Your task to perform on an android device: check android version Image 0: 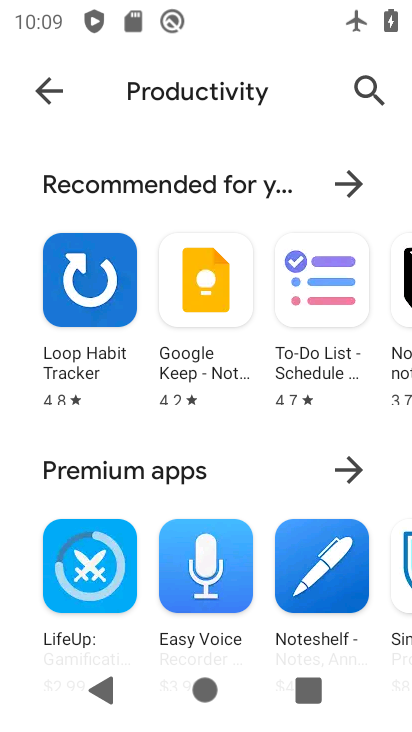
Step 0: press home button
Your task to perform on an android device: check android version Image 1: 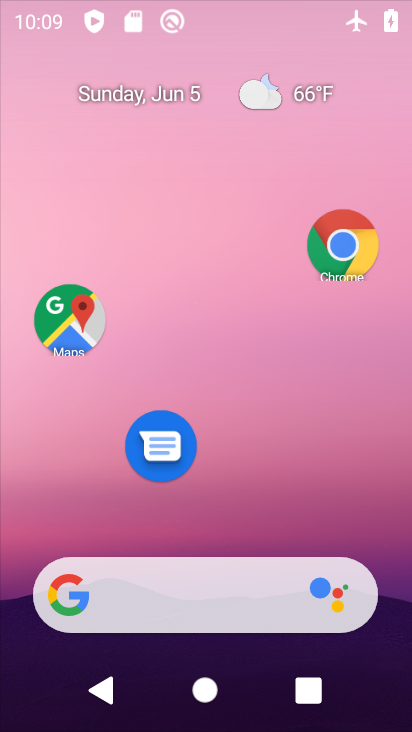
Step 1: drag from (225, 528) to (216, 181)
Your task to perform on an android device: check android version Image 2: 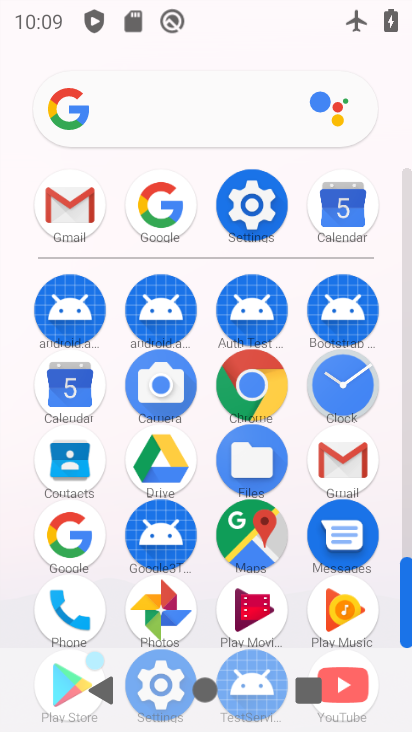
Step 2: click (243, 214)
Your task to perform on an android device: check android version Image 3: 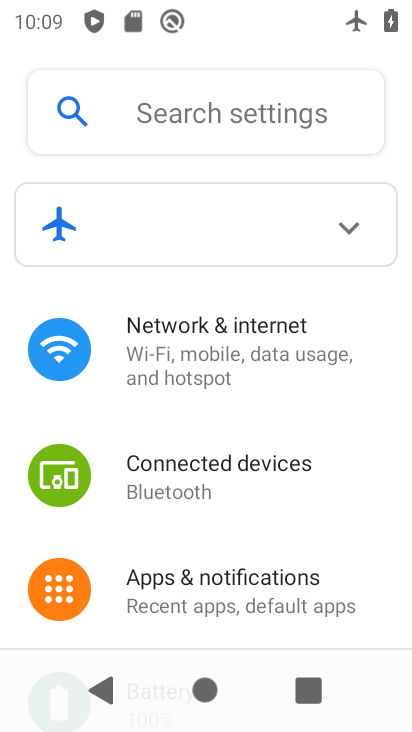
Step 3: drag from (243, 575) to (227, 187)
Your task to perform on an android device: check android version Image 4: 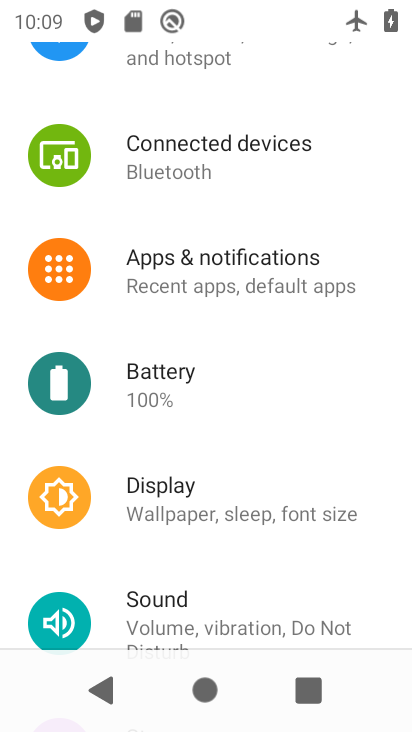
Step 4: drag from (231, 539) to (226, 151)
Your task to perform on an android device: check android version Image 5: 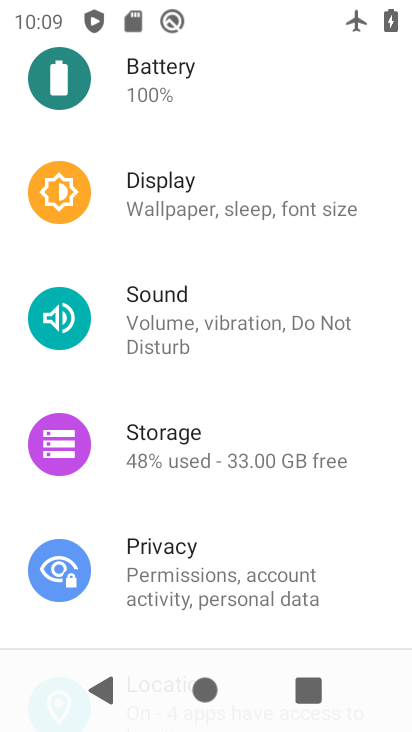
Step 5: drag from (233, 557) to (278, 151)
Your task to perform on an android device: check android version Image 6: 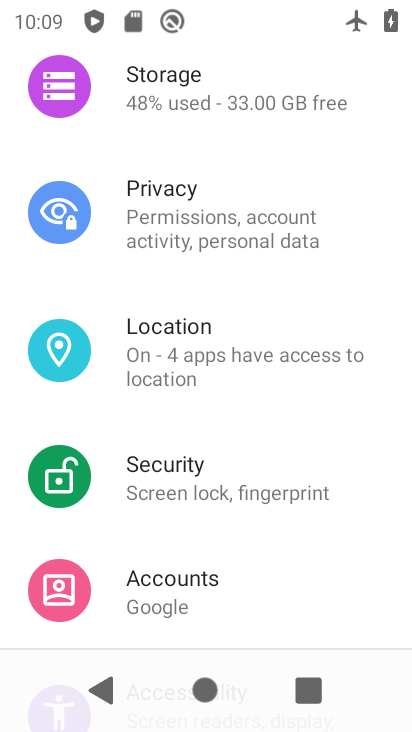
Step 6: drag from (285, 573) to (287, 134)
Your task to perform on an android device: check android version Image 7: 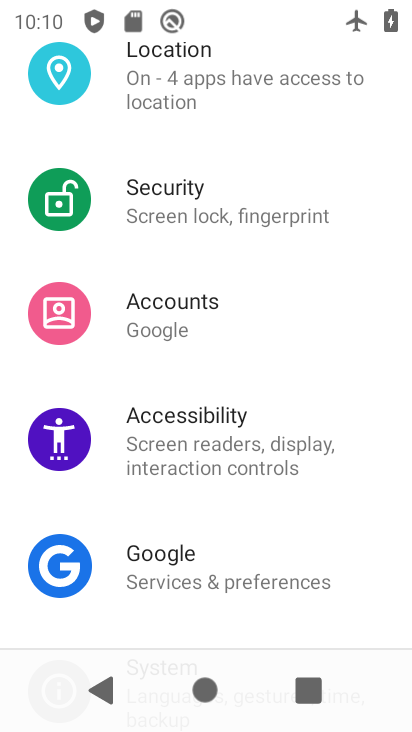
Step 7: drag from (213, 523) to (208, 179)
Your task to perform on an android device: check android version Image 8: 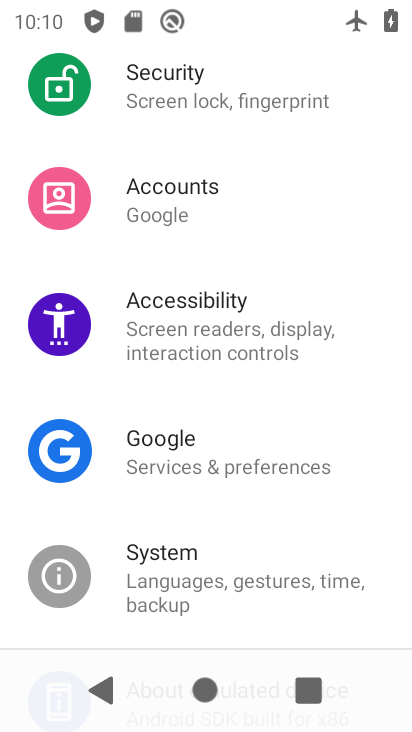
Step 8: drag from (221, 361) to (223, 204)
Your task to perform on an android device: check android version Image 9: 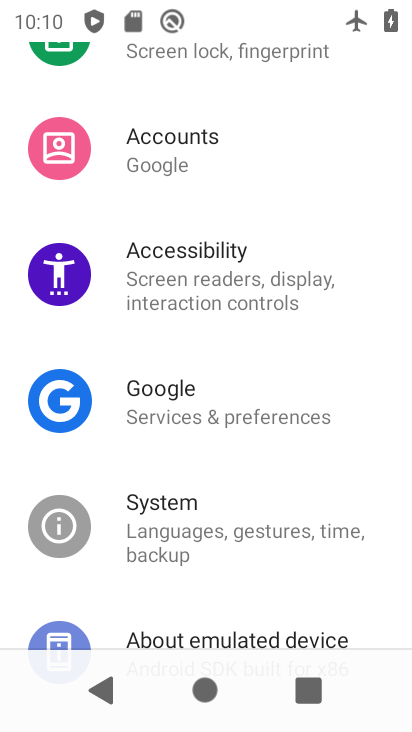
Step 9: drag from (193, 612) to (201, 242)
Your task to perform on an android device: check android version Image 10: 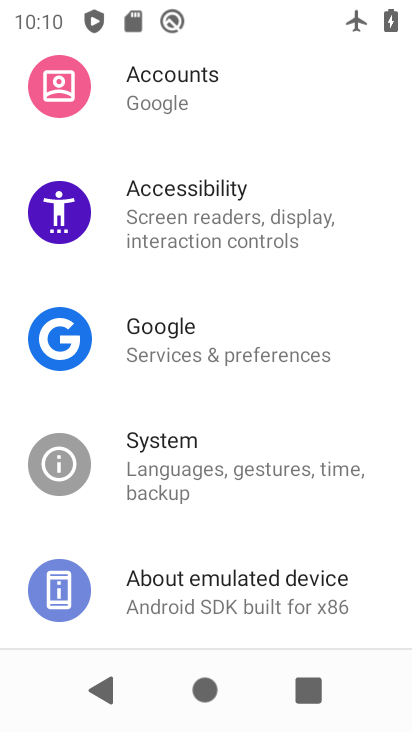
Step 10: click (228, 602)
Your task to perform on an android device: check android version Image 11: 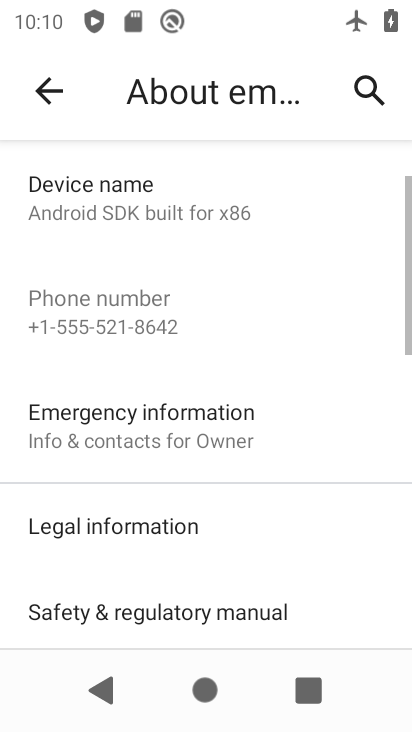
Step 11: drag from (186, 521) to (233, 235)
Your task to perform on an android device: check android version Image 12: 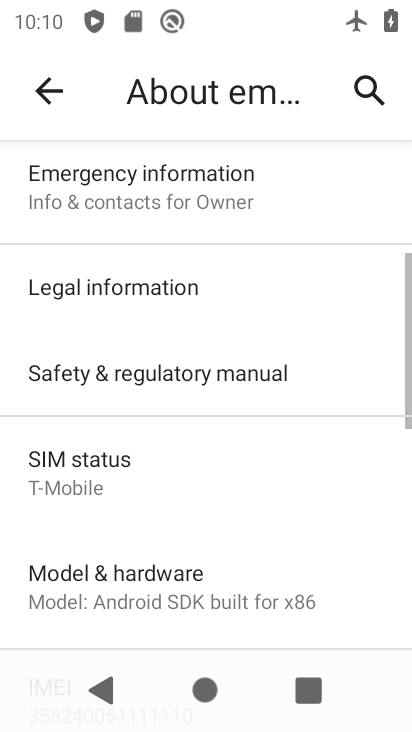
Step 12: drag from (256, 614) to (262, 313)
Your task to perform on an android device: check android version Image 13: 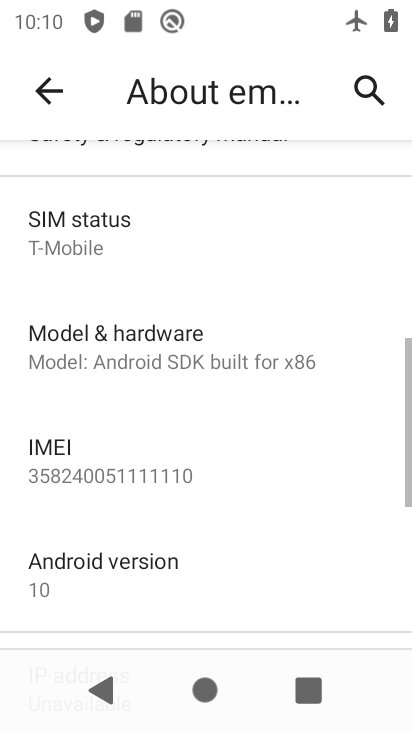
Step 13: drag from (231, 570) to (241, 295)
Your task to perform on an android device: check android version Image 14: 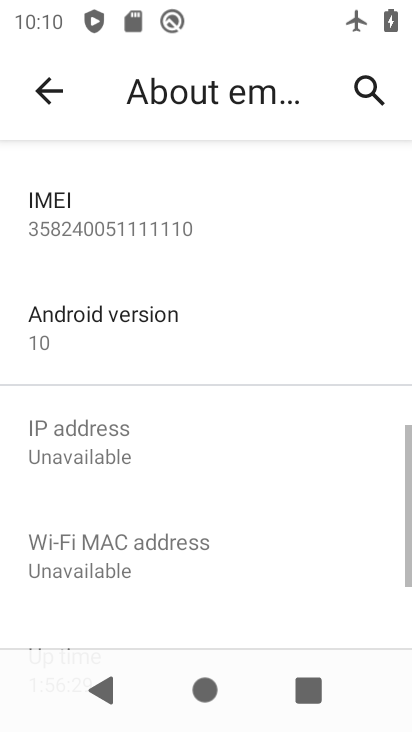
Step 14: click (181, 324)
Your task to perform on an android device: check android version Image 15: 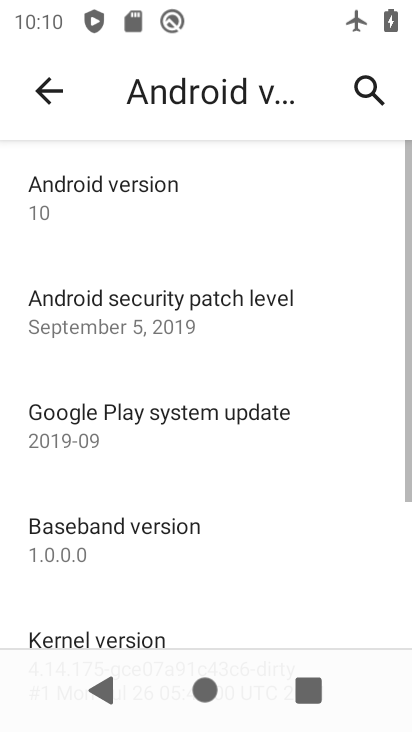
Step 15: click (152, 216)
Your task to perform on an android device: check android version Image 16: 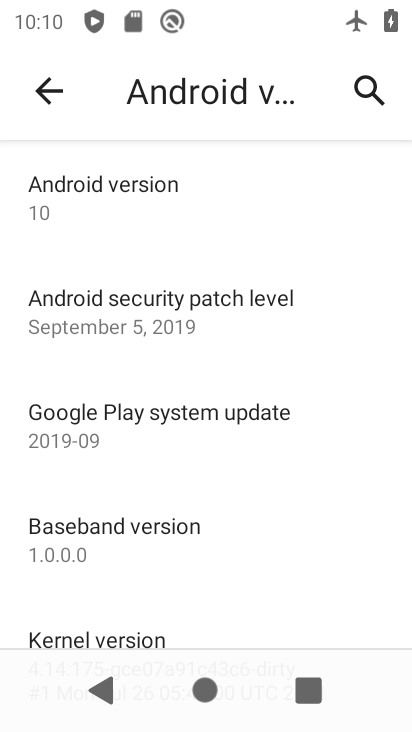
Step 16: click (152, 216)
Your task to perform on an android device: check android version Image 17: 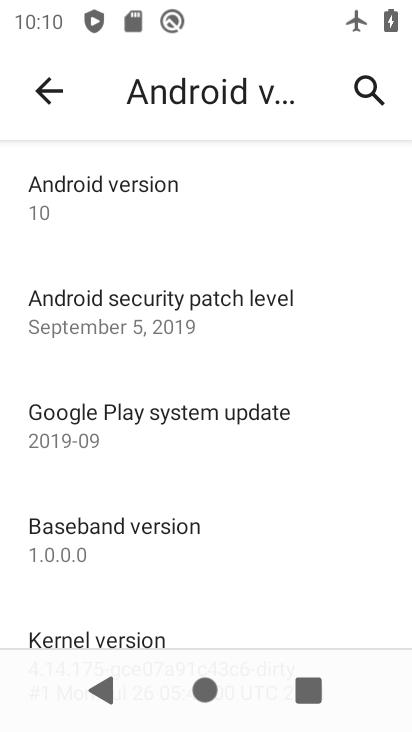
Step 17: click (152, 216)
Your task to perform on an android device: check android version Image 18: 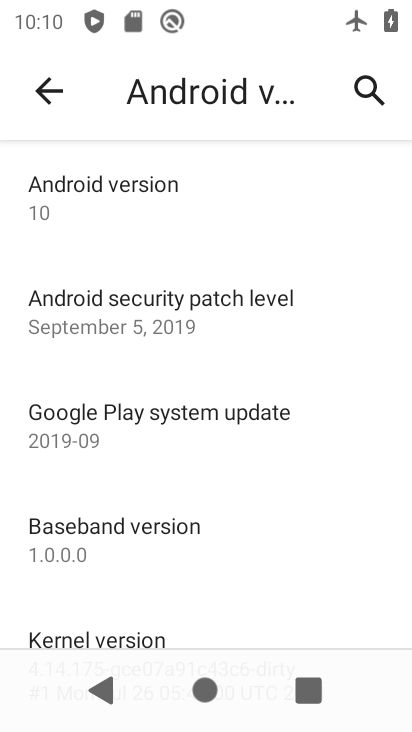
Step 18: click (152, 216)
Your task to perform on an android device: check android version Image 19: 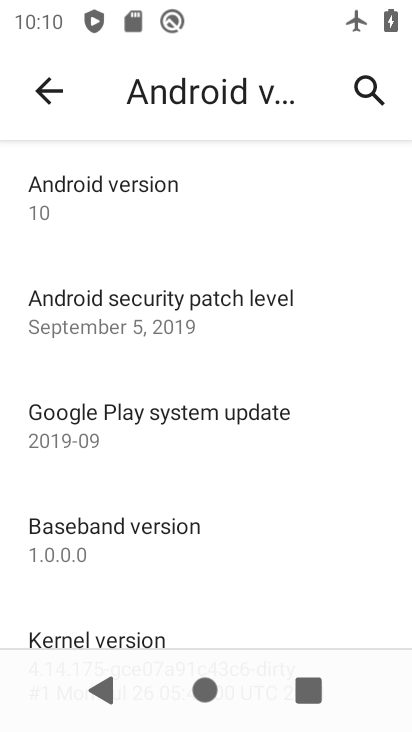
Step 19: click (152, 216)
Your task to perform on an android device: check android version Image 20: 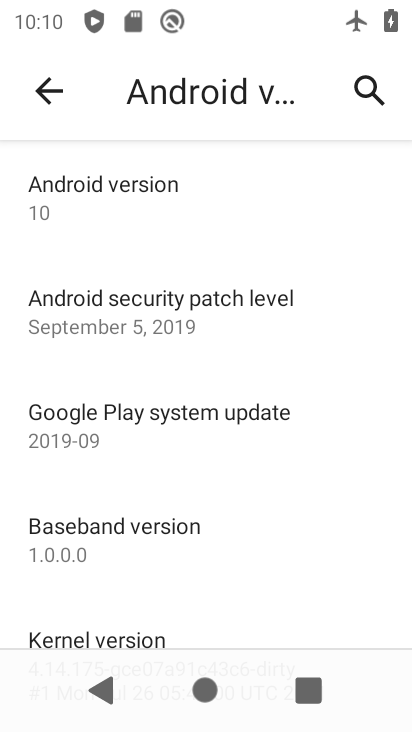
Step 20: click (191, 210)
Your task to perform on an android device: check android version Image 21: 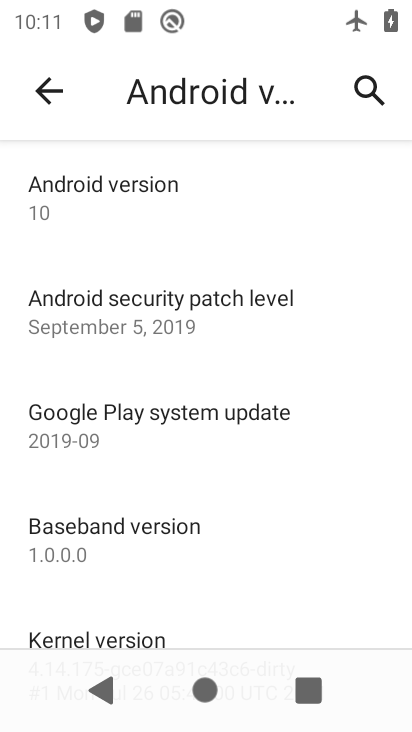
Step 21: click (84, 211)
Your task to perform on an android device: check android version Image 22: 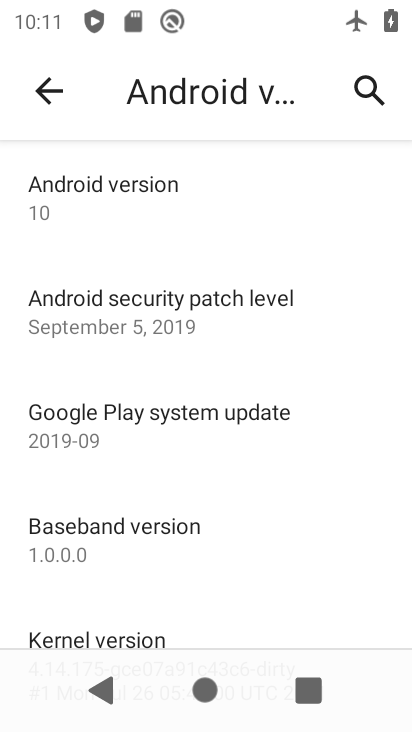
Step 22: click (84, 211)
Your task to perform on an android device: check android version Image 23: 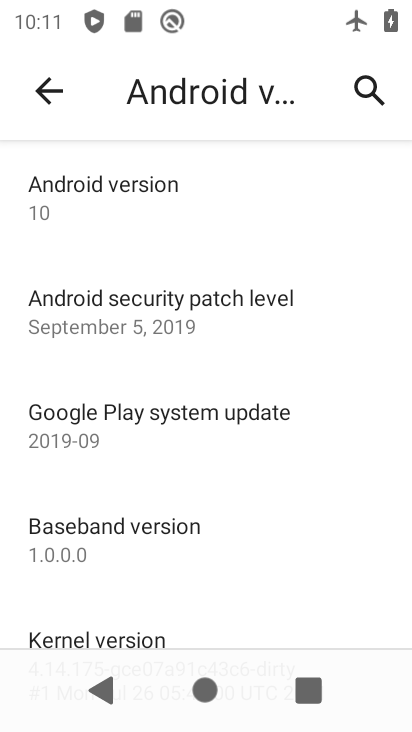
Step 23: click (259, 171)
Your task to perform on an android device: check android version Image 24: 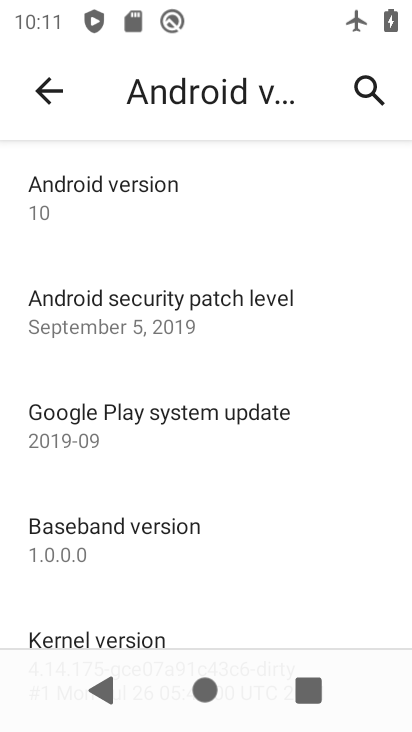
Step 24: task complete